Your task to perform on an android device: Add dell xps to the cart on newegg Image 0: 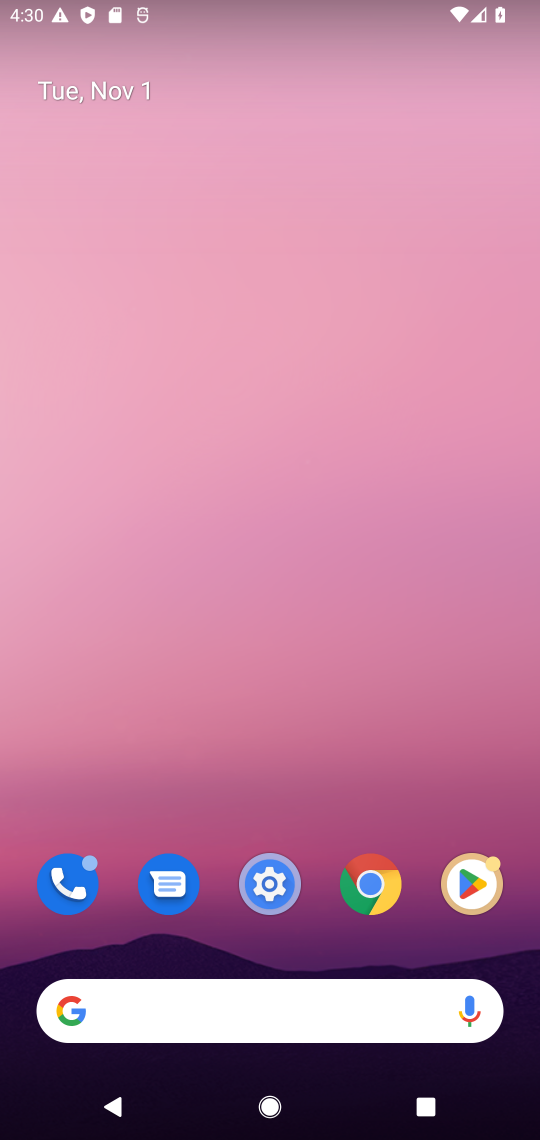
Step 0: click (359, 892)
Your task to perform on an android device: Add dell xps to the cart on newegg Image 1: 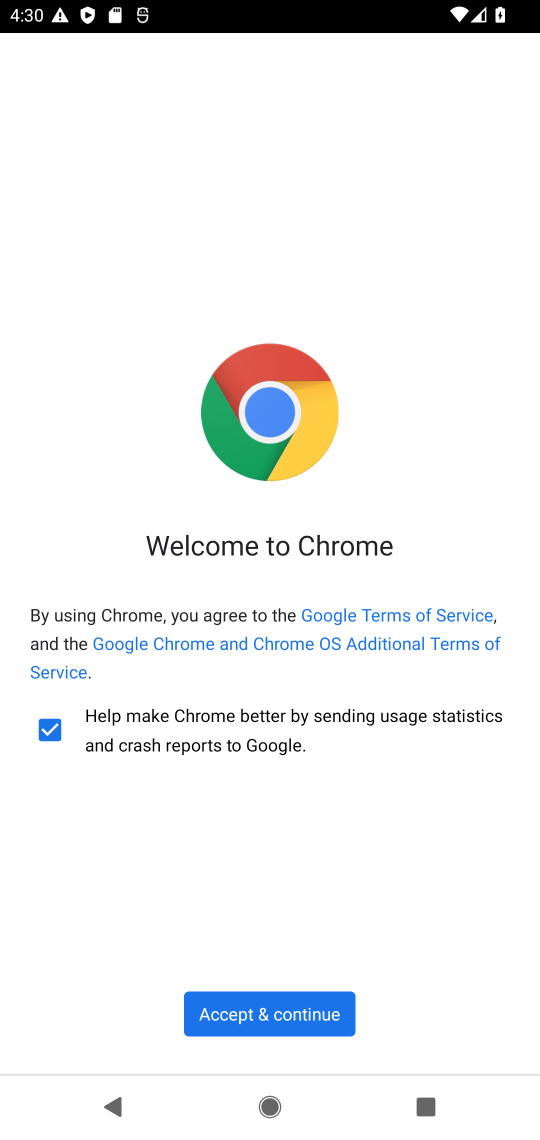
Step 1: click (311, 1007)
Your task to perform on an android device: Add dell xps to the cart on newegg Image 2: 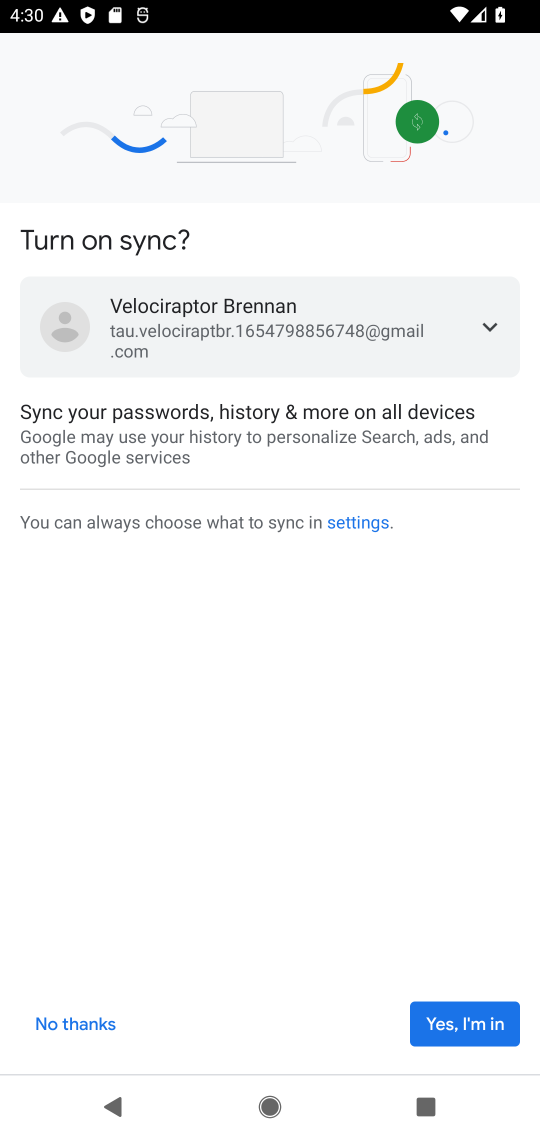
Step 2: click (478, 1009)
Your task to perform on an android device: Add dell xps to the cart on newegg Image 3: 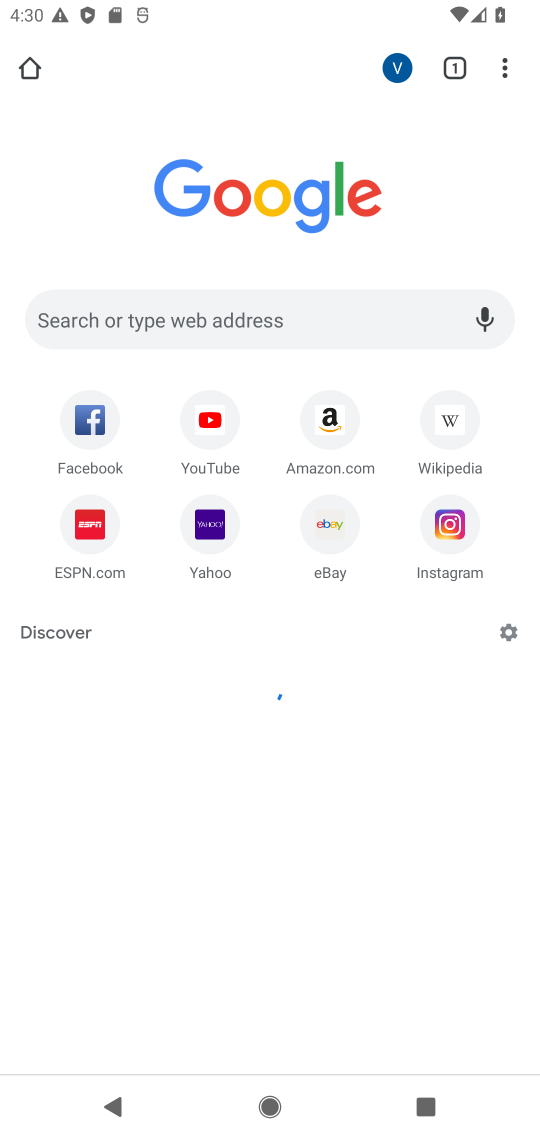
Step 3: click (288, 305)
Your task to perform on an android device: Add dell xps to the cart on newegg Image 4: 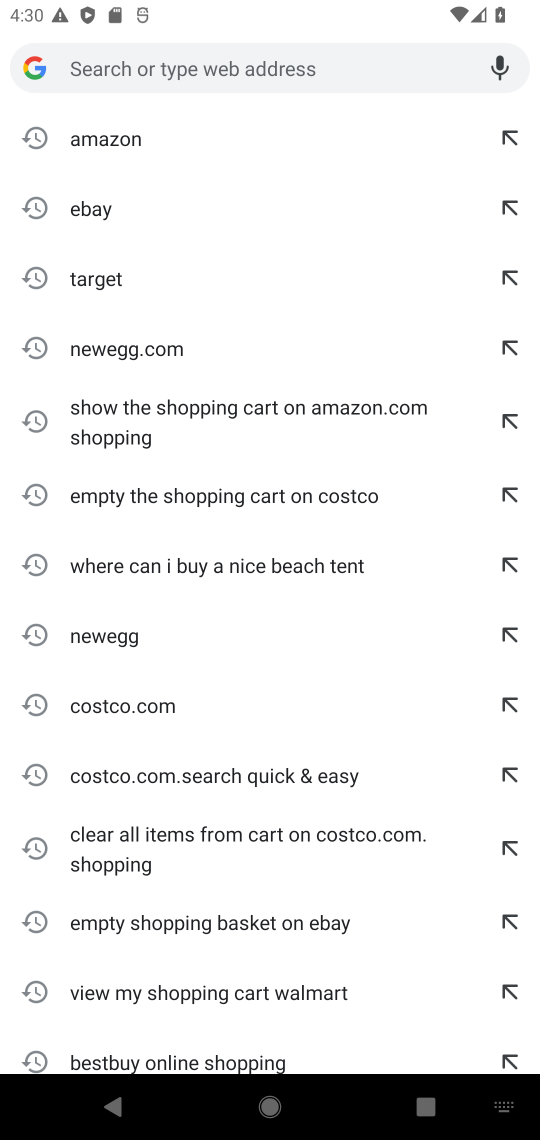
Step 4: type "newegg.com"
Your task to perform on an android device: Add dell xps to the cart on newegg Image 5: 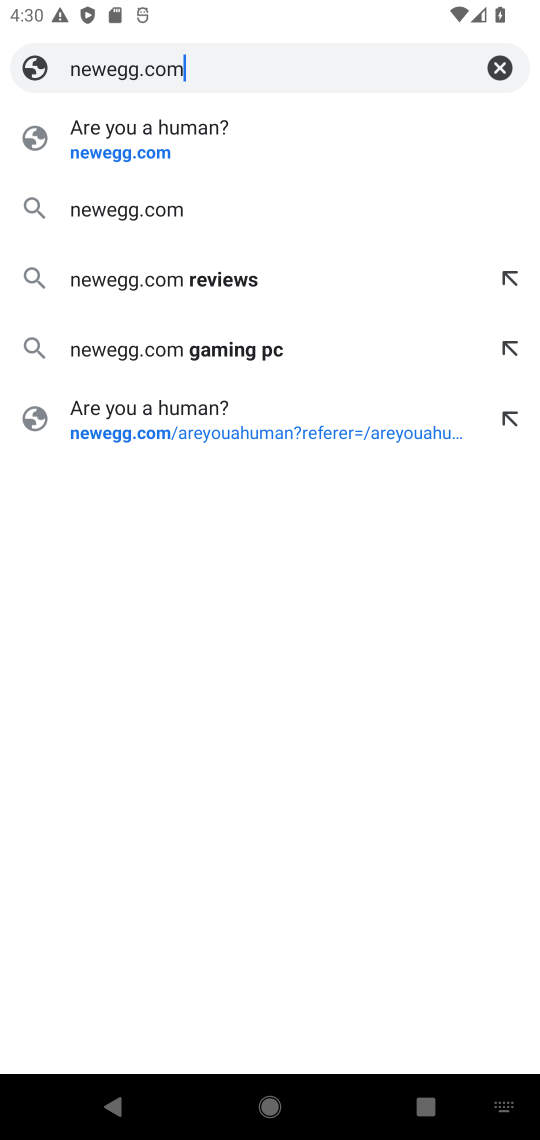
Step 5: click (151, 211)
Your task to perform on an android device: Add dell xps to the cart on newegg Image 6: 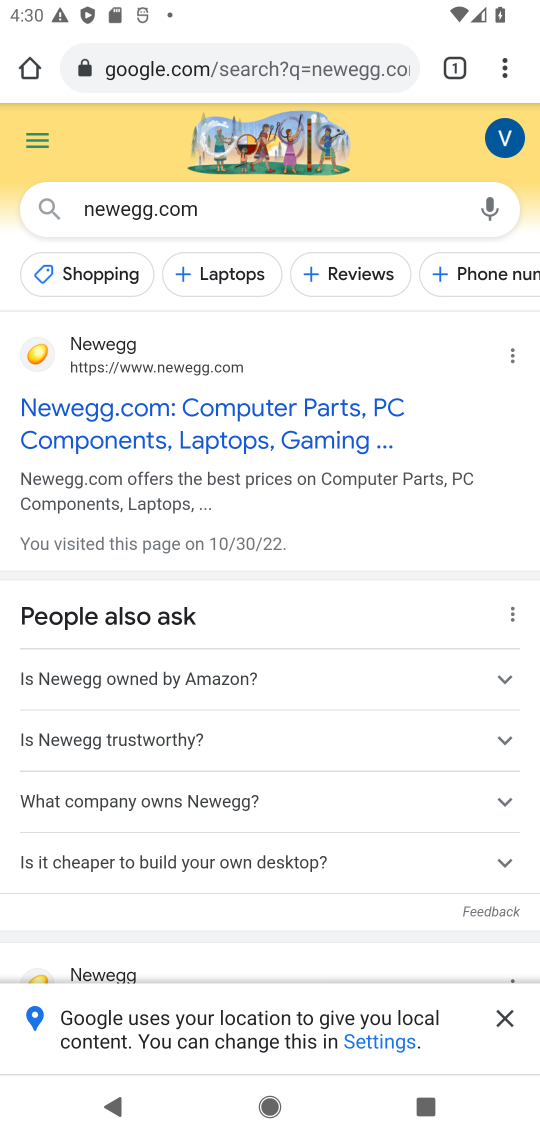
Step 6: click (207, 422)
Your task to perform on an android device: Add dell xps to the cart on newegg Image 7: 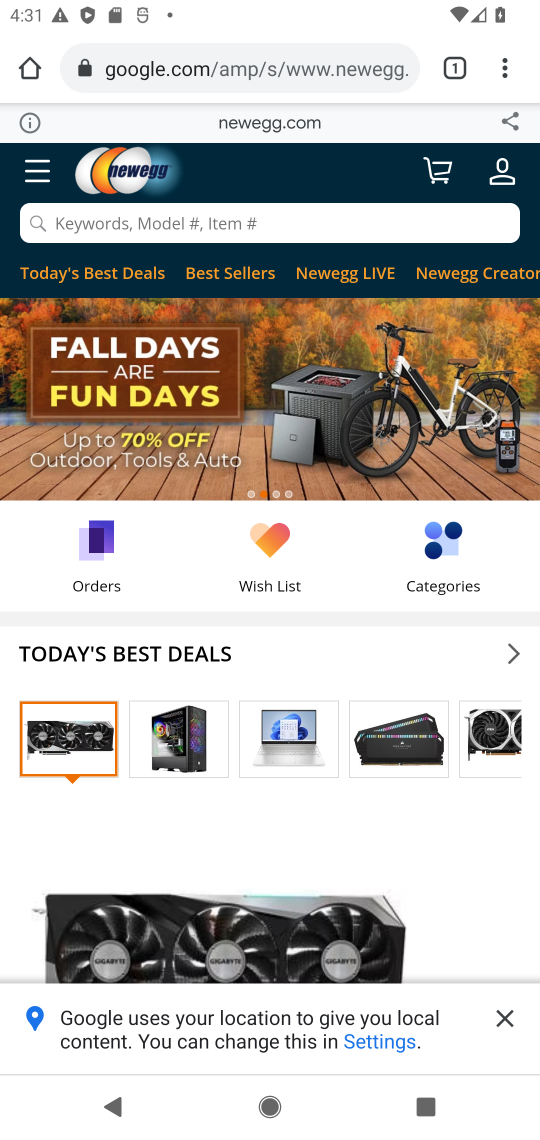
Step 7: click (247, 229)
Your task to perform on an android device: Add dell xps to the cart on newegg Image 8: 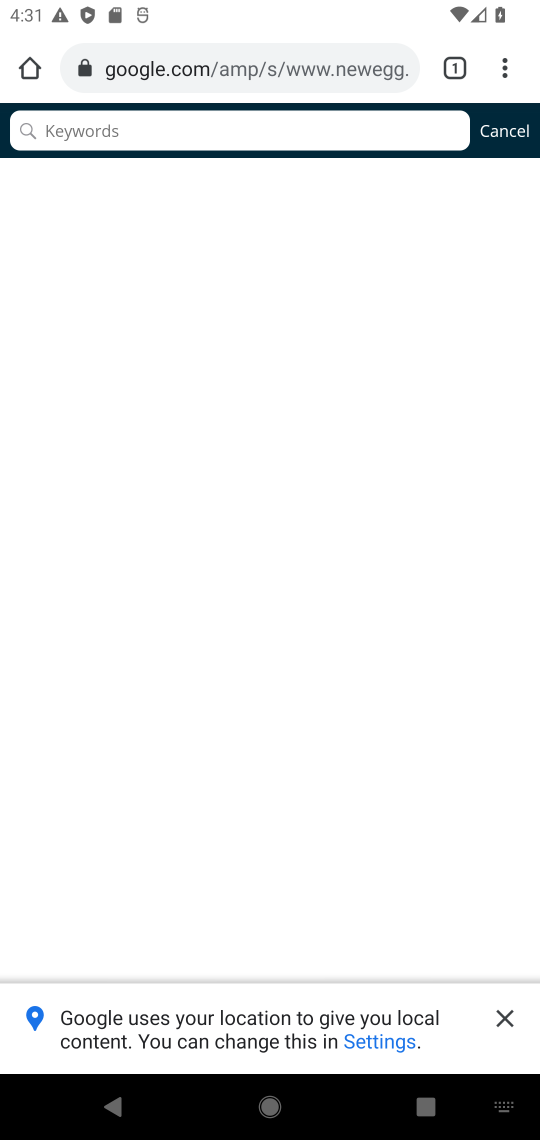
Step 8: type "dell xps"
Your task to perform on an android device: Add dell xps to the cart on newegg Image 9: 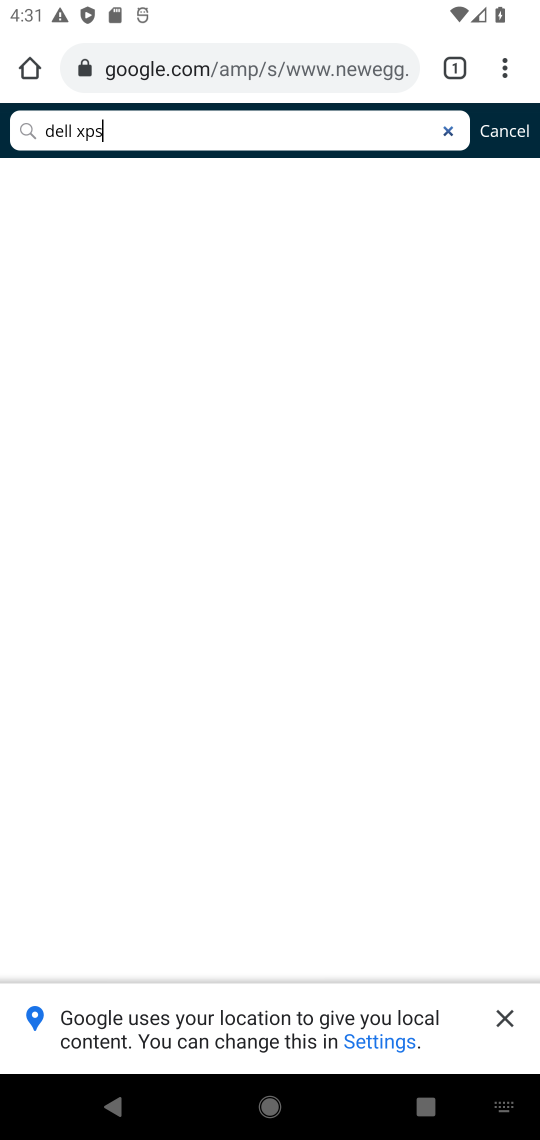
Step 9: task complete